Your task to perform on an android device: Open Google Image 0: 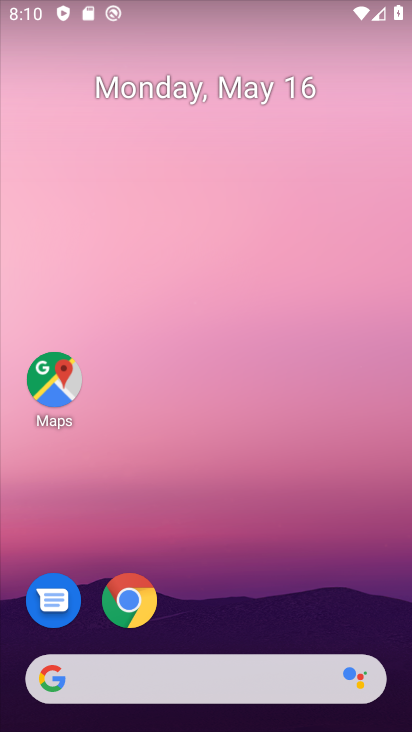
Step 0: drag from (207, 617) to (185, 102)
Your task to perform on an android device: Open Google Image 1: 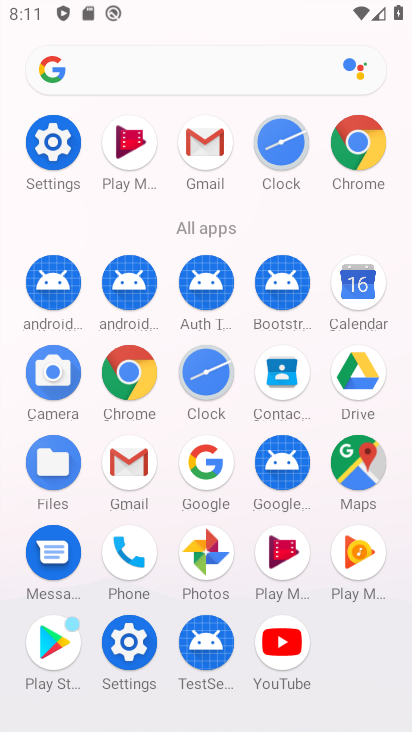
Step 1: click (187, 479)
Your task to perform on an android device: Open Google Image 2: 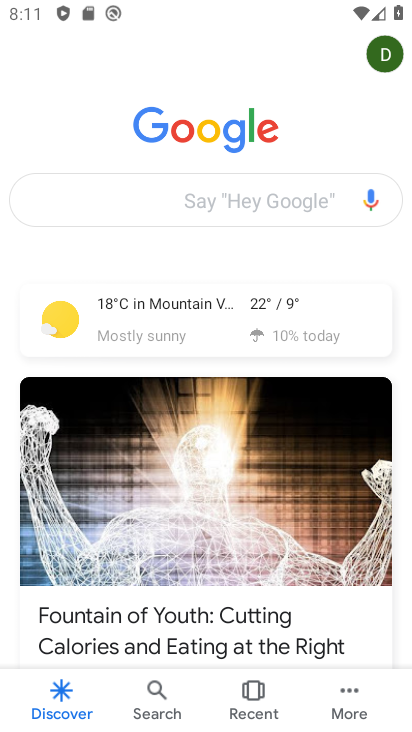
Step 2: task complete